Your task to perform on an android device: turn pop-ups on in chrome Image 0: 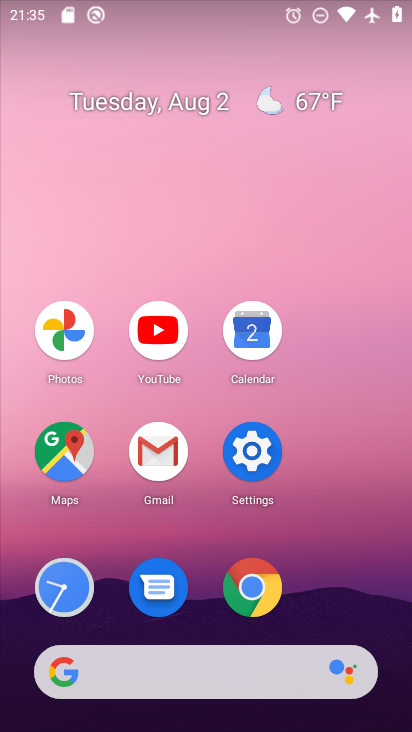
Step 0: click (247, 594)
Your task to perform on an android device: turn pop-ups on in chrome Image 1: 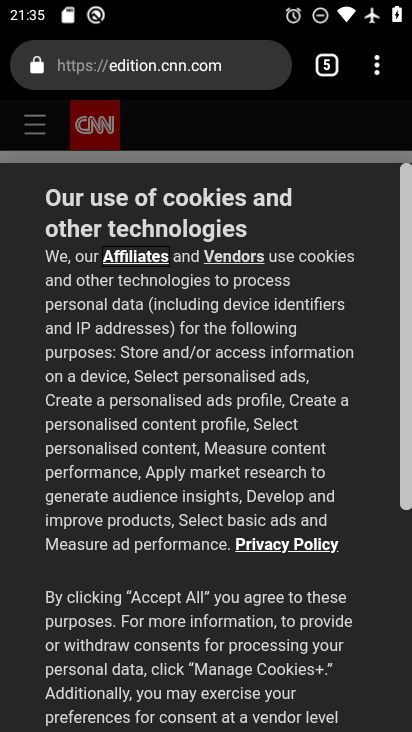
Step 1: click (382, 65)
Your task to perform on an android device: turn pop-ups on in chrome Image 2: 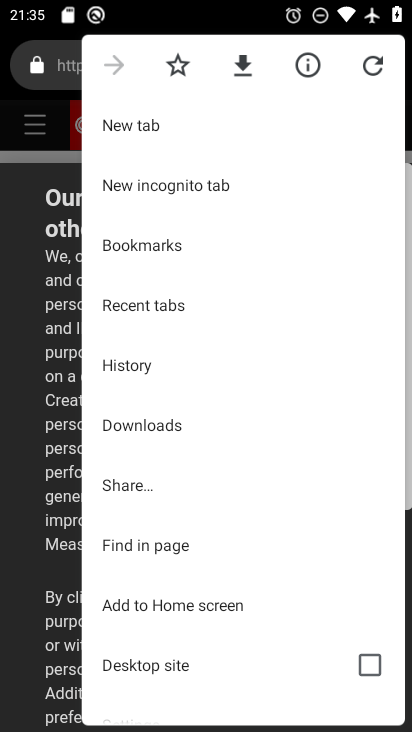
Step 2: drag from (241, 538) to (254, 317)
Your task to perform on an android device: turn pop-ups on in chrome Image 3: 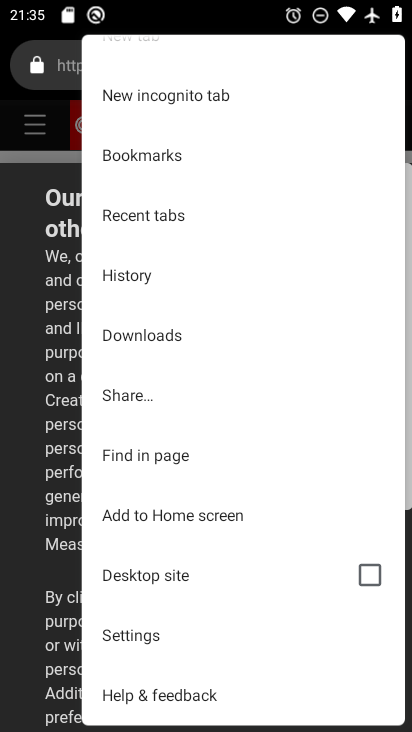
Step 3: click (139, 632)
Your task to perform on an android device: turn pop-ups on in chrome Image 4: 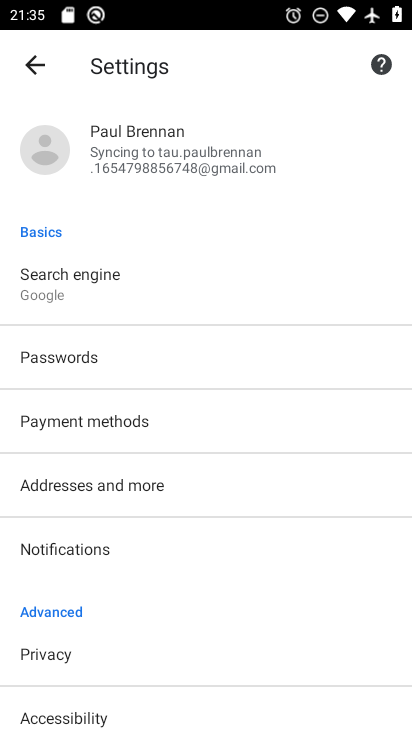
Step 4: drag from (166, 614) to (173, 212)
Your task to perform on an android device: turn pop-ups on in chrome Image 5: 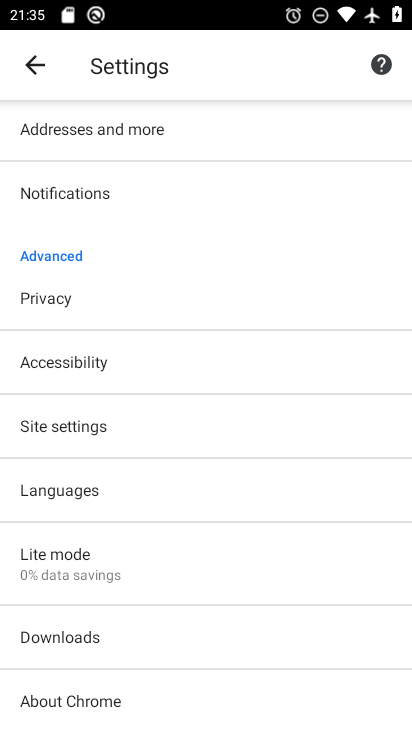
Step 5: click (89, 425)
Your task to perform on an android device: turn pop-ups on in chrome Image 6: 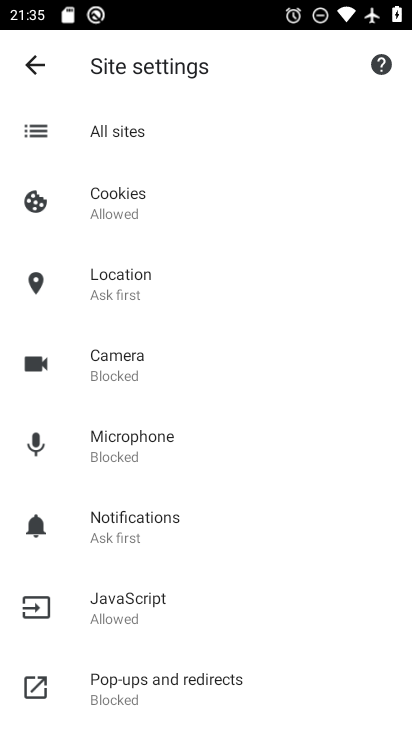
Step 6: click (137, 680)
Your task to perform on an android device: turn pop-ups on in chrome Image 7: 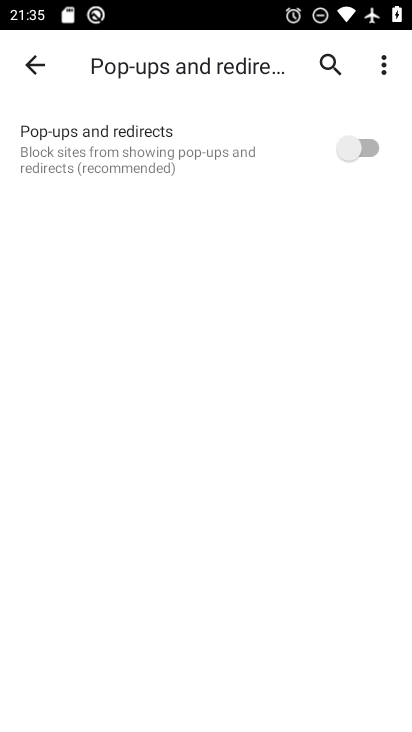
Step 7: click (354, 149)
Your task to perform on an android device: turn pop-ups on in chrome Image 8: 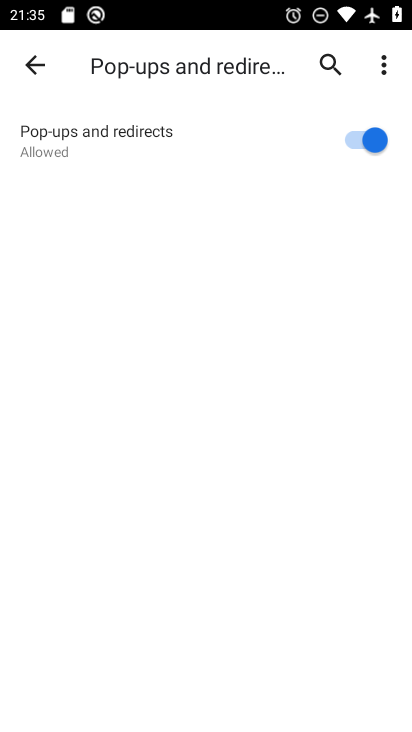
Step 8: task complete